Your task to perform on an android device: Open battery settings Image 0: 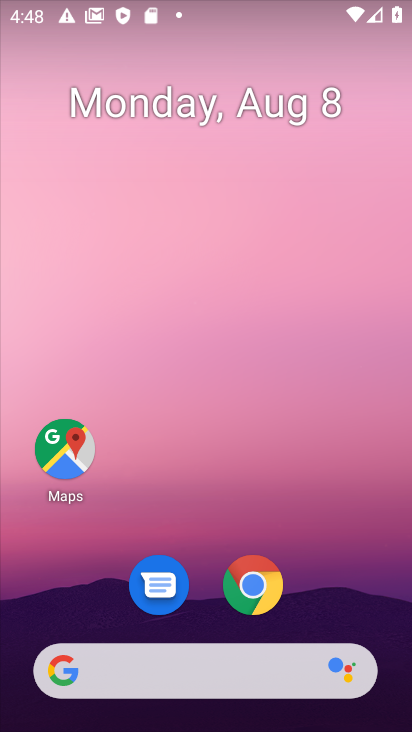
Step 0: drag from (210, 563) to (224, 0)
Your task to perform on an android device: Open battery settings Image 1: 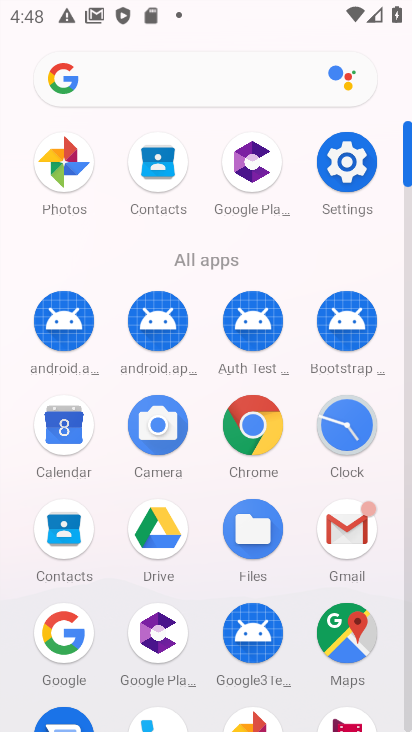
Step 1: click (344, 159)
Your task to perform on an android device: Open battery settings Image 2: 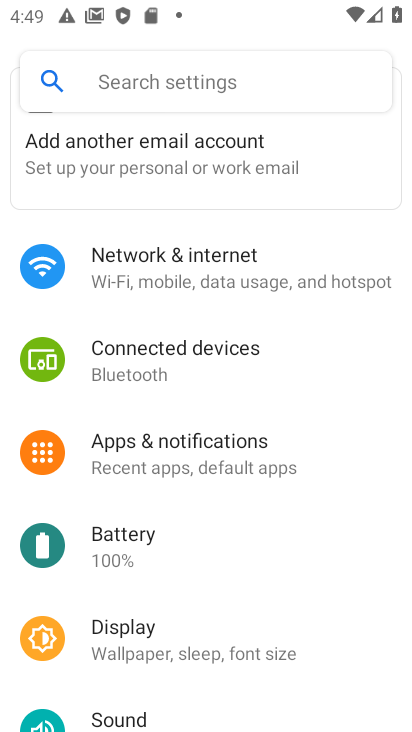
Step 2: click (128, 544)
Your task to perform on an android device: Open battery settings Image 3: 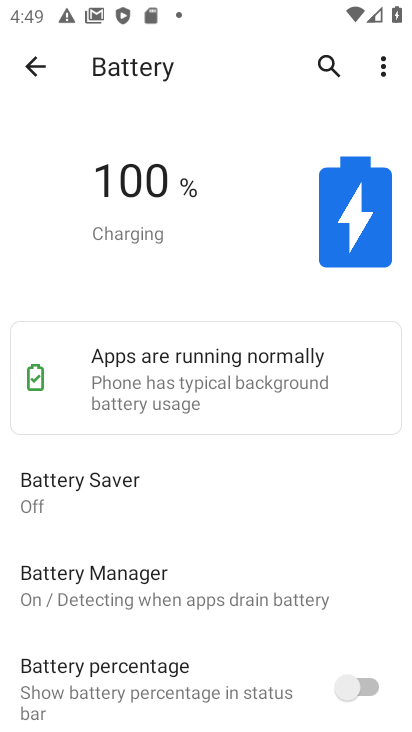
Step 3: task complete